Your task to perform on an android device: snooze an email in the gmail app Image 0: 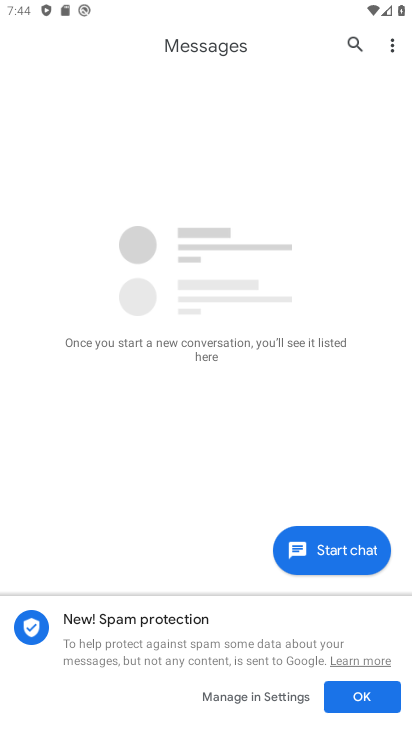
Step 0: press home button
Your task to perform on an android device: snooze an email in the gmail app Image 1: 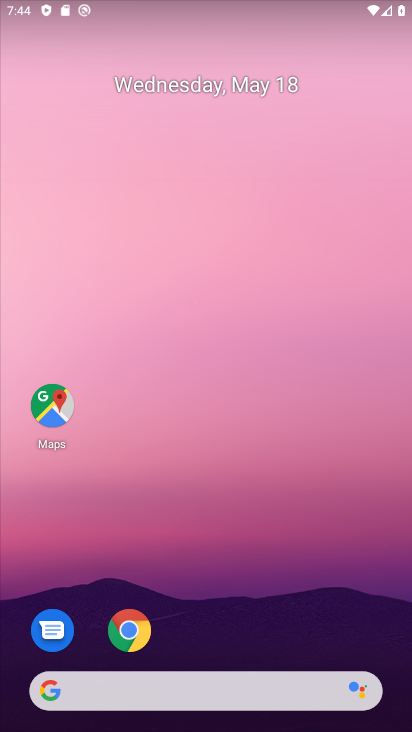
Step 1: drag from (219, 572) to (116, 142)
Your task to perform on an android device: snooze an email in the gmail app Image 2: 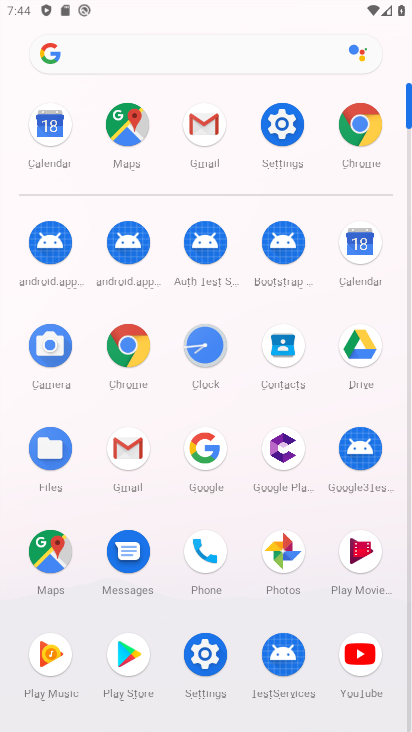
Step 2: click (203, 122)
Your task to perform on an android device: snooze an email in the gmail app Image 3: 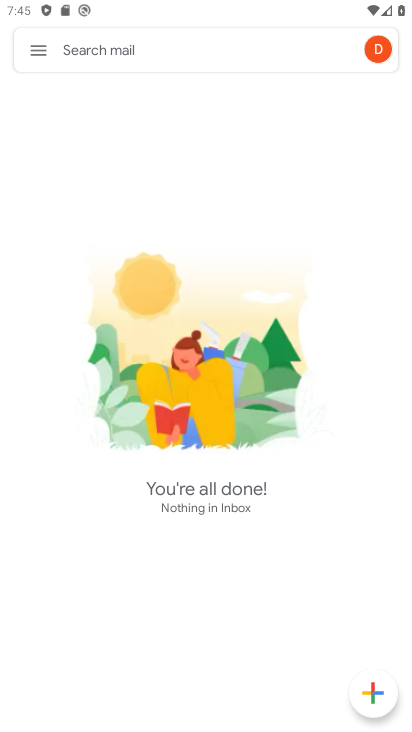
Step 3: click (37, 53)
Your task to perform on an android device: snooze an email in the gmail app Image 4: 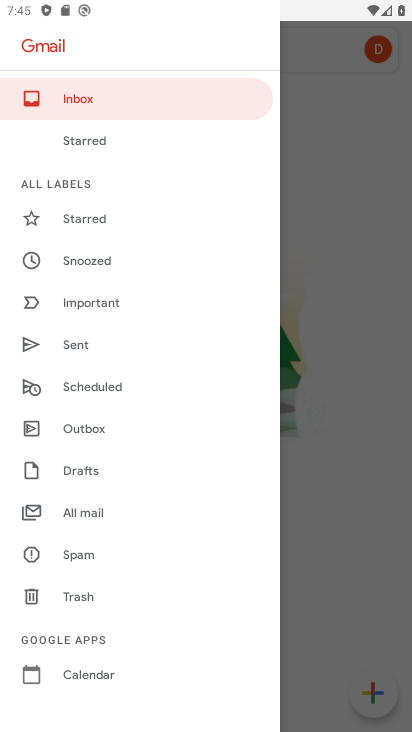
Step 4: click (78, 510)
Your task to perform on an android device: snooze an email in the gmail app Image 5: 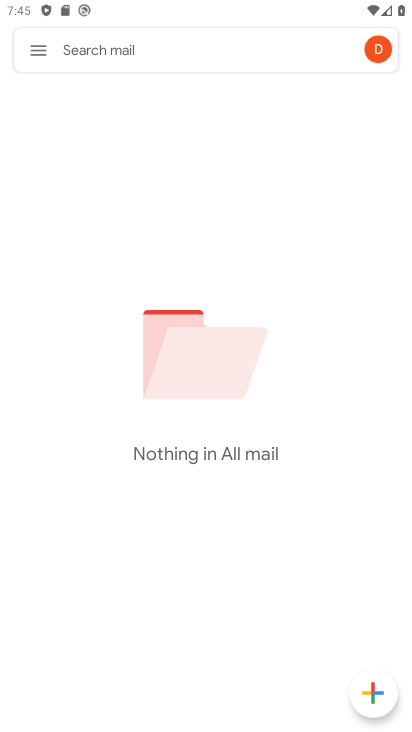
Step 5: task complete